Your task to perform on an android device: toggle location history Image 0: 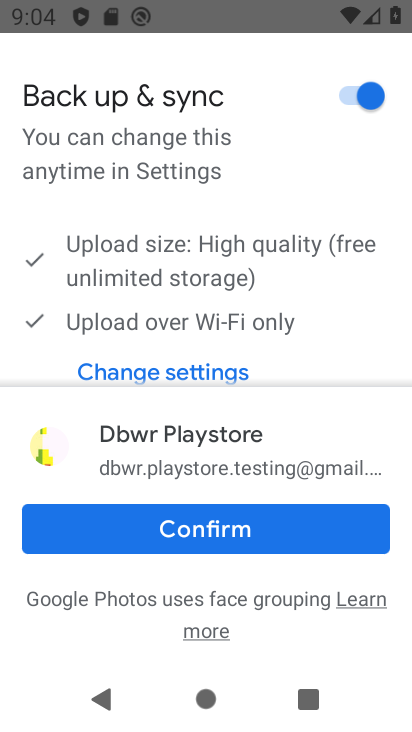
Step 0: press home button
Your task to perform on an android device: toggle location history Image 1: 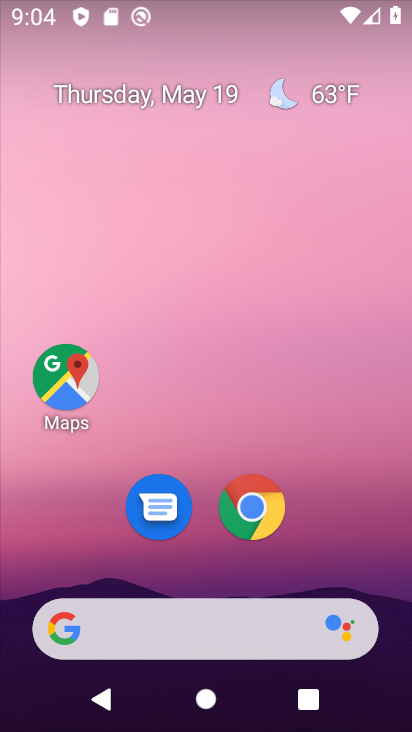
Step 1: click (75, 393)
Your task to perform on an android device: toggle location history Image 2: 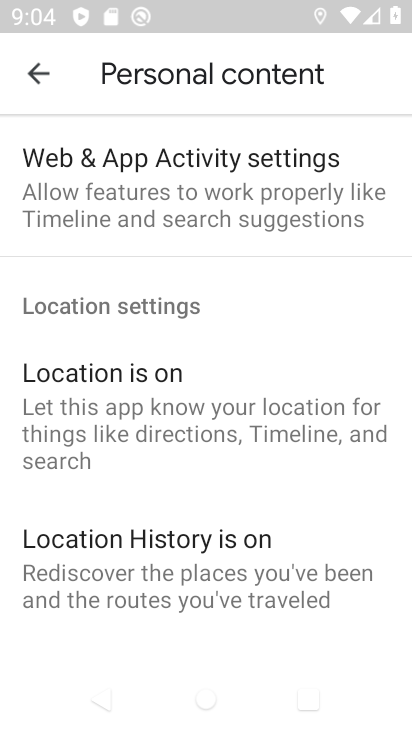
Step 2: click (172, 560)
Your task to perform on an android device: toggle location history Image 3: 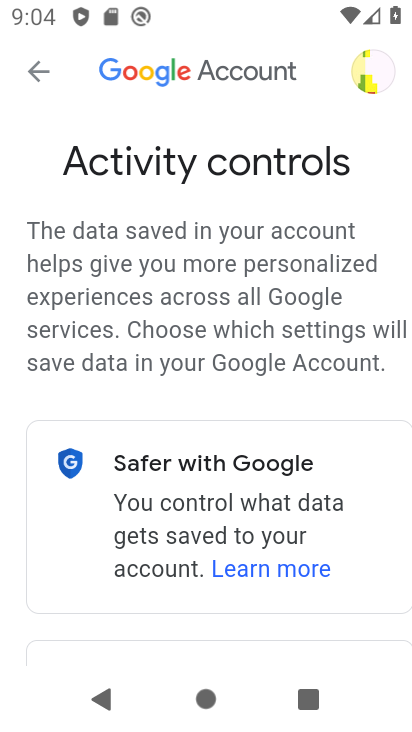
Step 3: drag from (304, 631) to (261, 188)
Your task to perform on an android device: toggle location history Image 4: 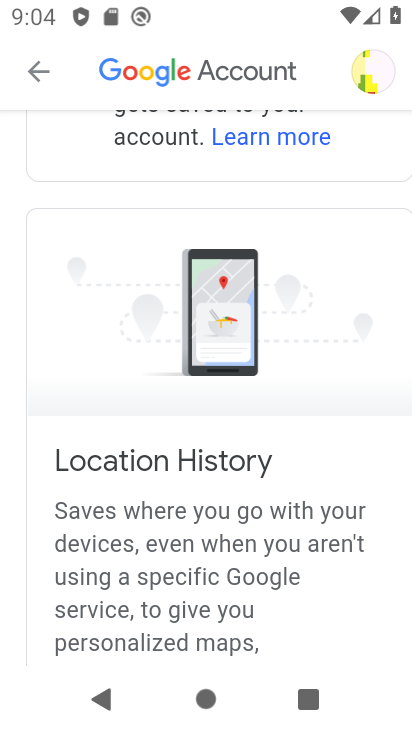
Step 4: drag from (322, 575) to (269, 164)
Your task to perform on an android device: toggle location history Image 5: 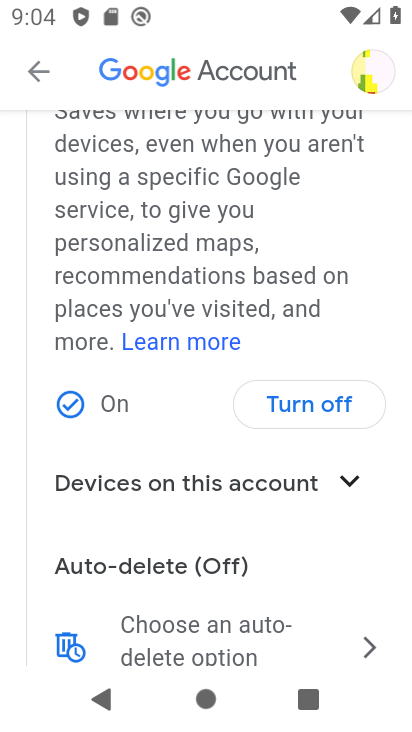
Step 5: click (336, 399)
Your task to perform on an android device: toggle location history Image 6: 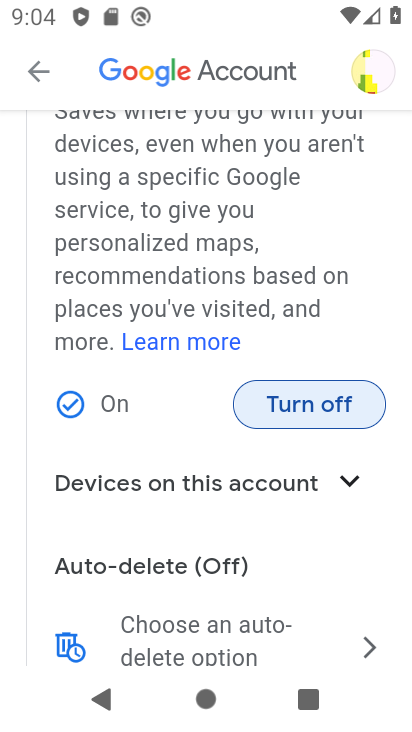
Step 6: click (331, 397)
Your task to perform on an android device: toggle location history Image 7: 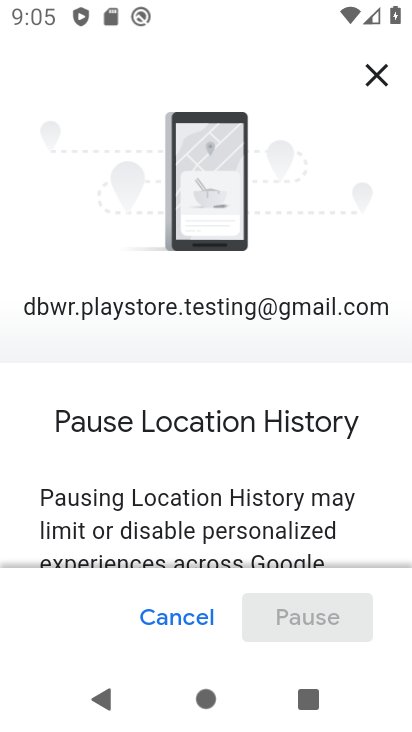
Step 7: drag from (373, 512) to (354, 138)
Your task to perform on an android device: toggle location history Image 8: 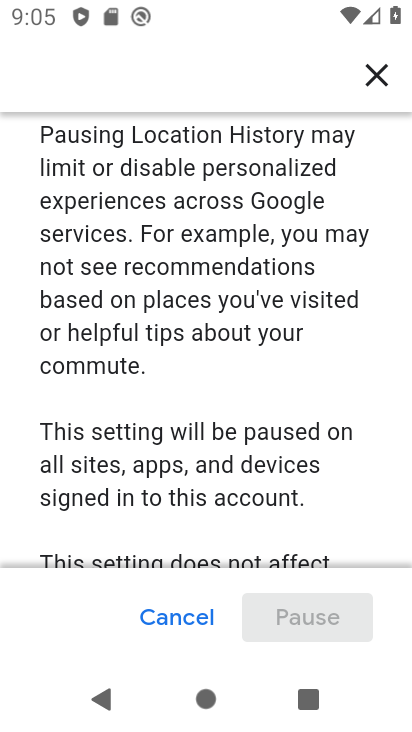
Step 8: drag from (365, 546) to (336, 145)
Your task to perform on an android device: toggle location history Image 9: 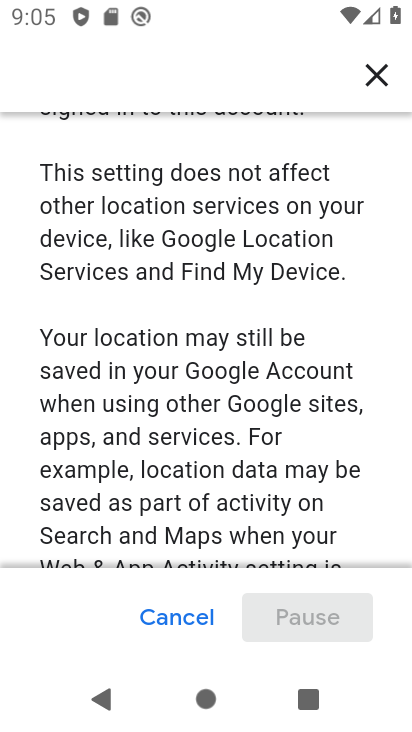
Step 9: drag from (315, 505) to (284, 139)
Your task to perform on an android device: toggle location history Image 10: 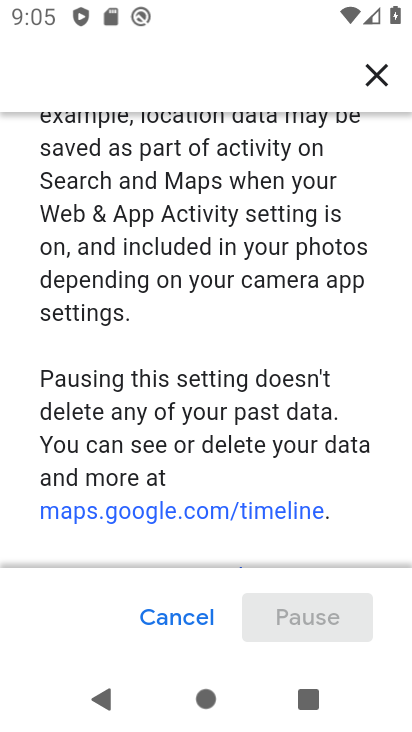
Step 10: drag from (329, 482) to (283, 157)
Your task to perform on an android device: toggle location history Image 11: 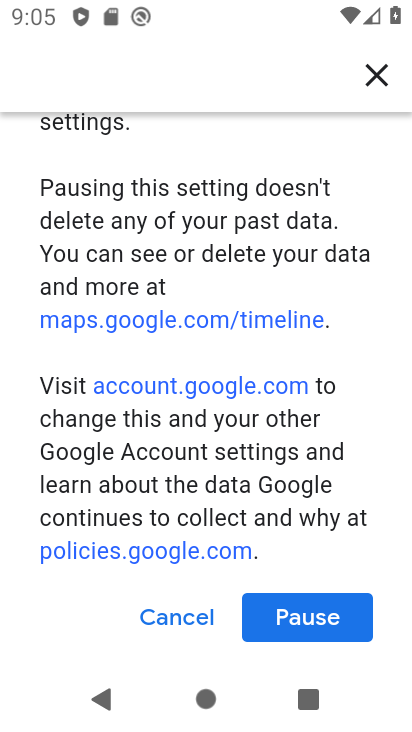
Step 11: click (305, 607)
Your task to perform on an android device: toggle location history Image 12: 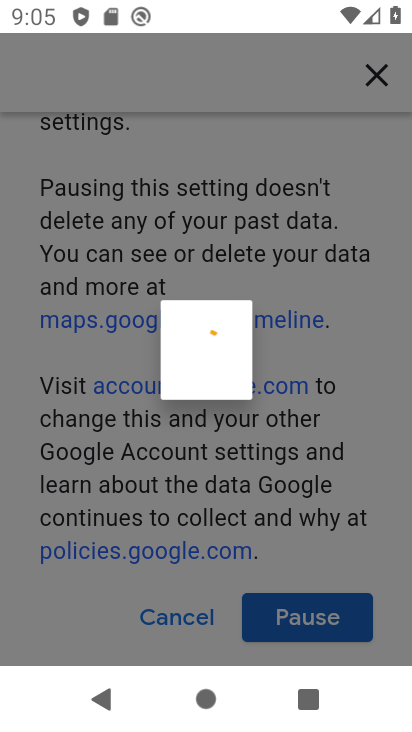
Step 12: click (318, 630)
Your task to perform on an android device: toggle location history Image 13: 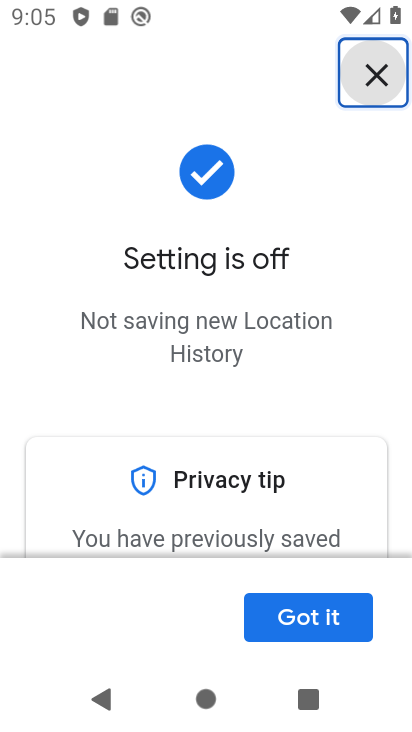
Step 13: click (333, 609)
Your task to perform on an android device: toggle location history Image 14: 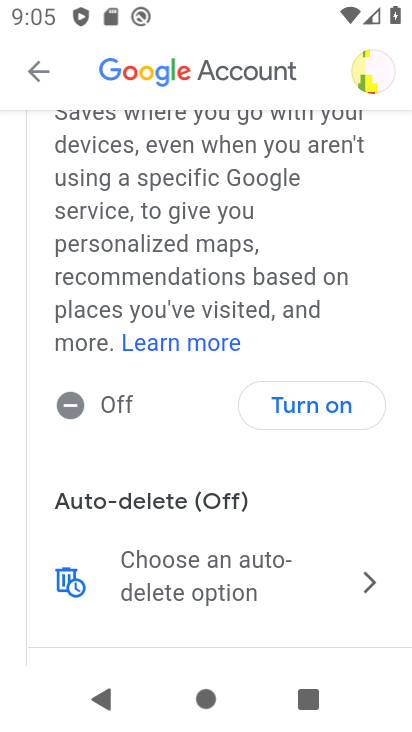
Step 14: task complete